Your task to perform on an android device: check data usage Image 0: 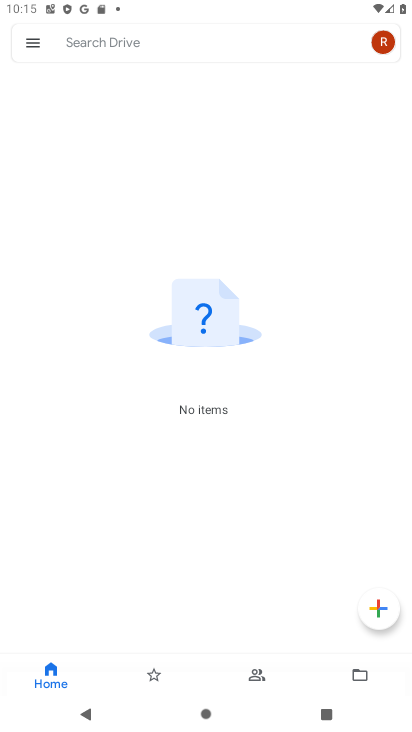
Step 0: press home button
Your task to perform on an android device: check data usage Image 1: 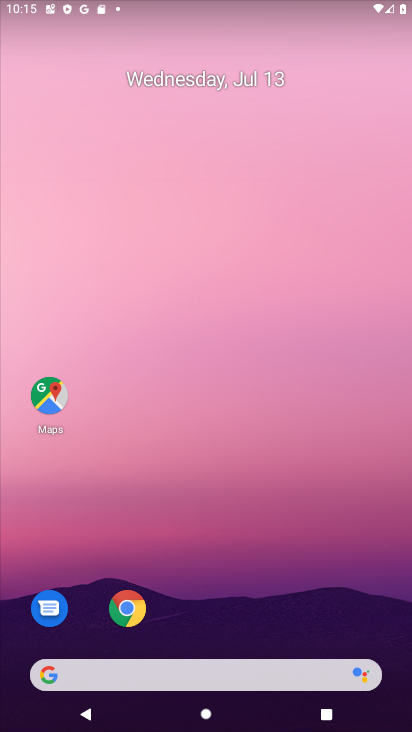
Step 1: drag from (194, 672) to (198, 326)
Your task to perform on an android device: check data usage Image 2: 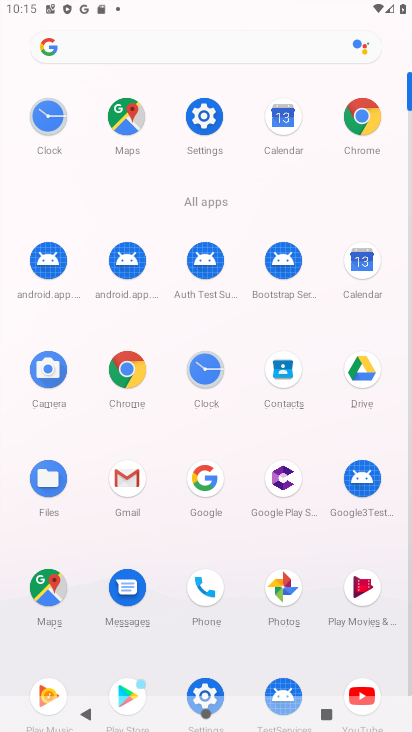
Step 2: click (205, 115)
Your task to perform on an android device: check data usage Image 3: 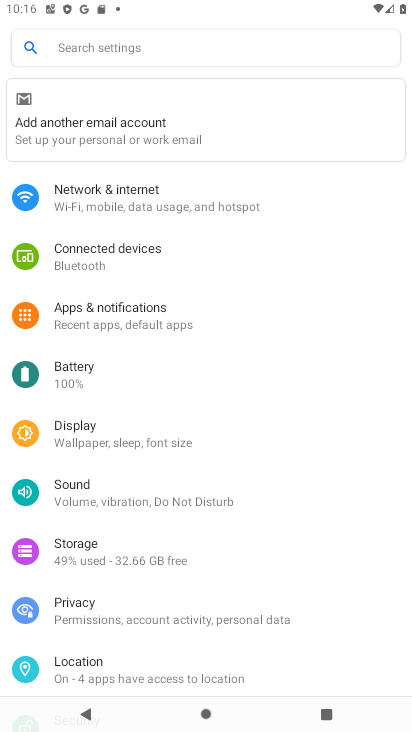
Step 3: click (128, 198)
Your task to perform on an android device: check data usage Image 4: 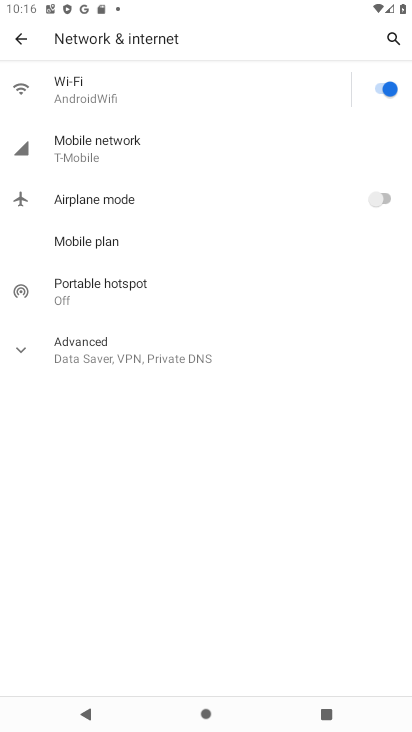
Step 4: click (104, 147)
Your task to perform on an android device: check data usage Image 5: 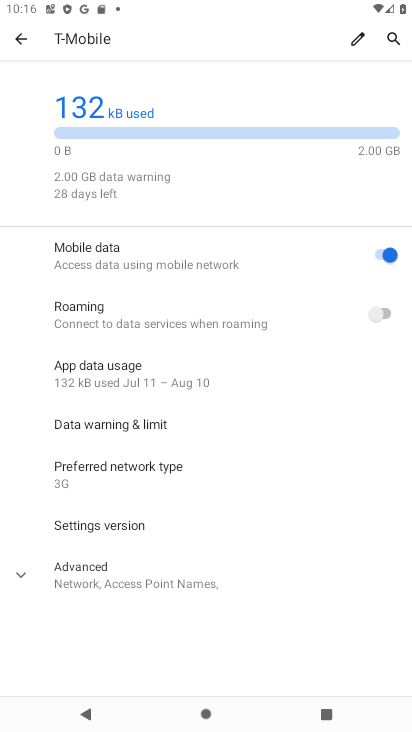
Step 5: task complete